Your task to perform on an android device: Go to location settings Image 0: 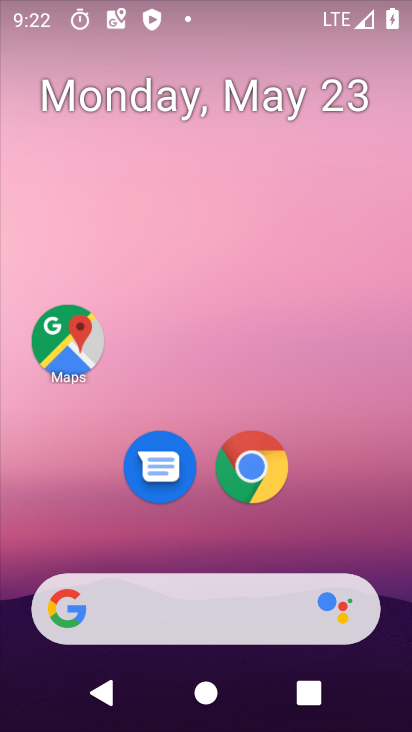
Step 0: drag from (290, 529) to (219, 6)
Your task to perform on an android device: Go to location settings Image 1: 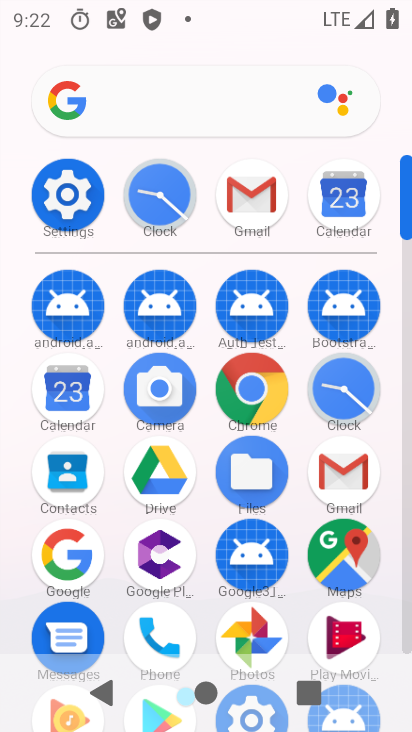
Step 1: click (77, 221)
Your task to perform on an android device: Go to location settings Image 2: 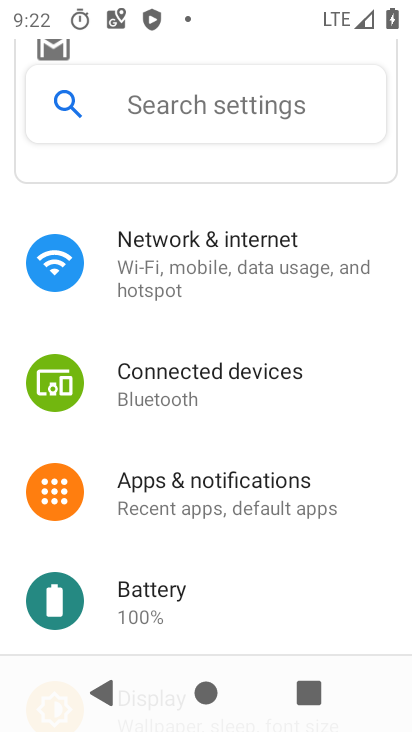
Step 2: drag from (235, 544) to (214, 126)
Your task to perform on an android device: Go to location settings Image 3: 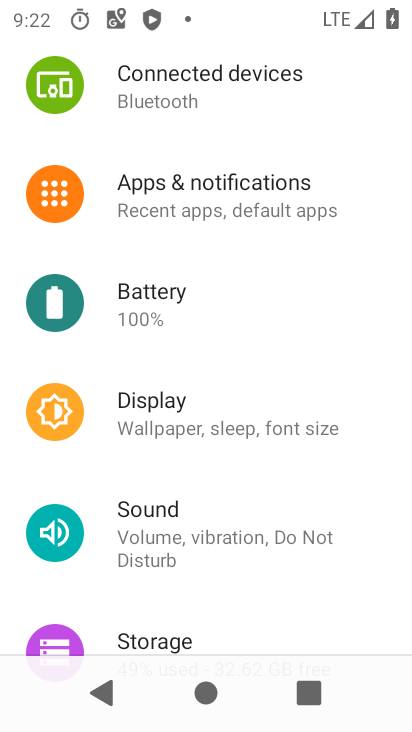
Step 3: drag from (232, 521) to (195, 141)
Your task to perform on an android device: Go to location settings Image 4: 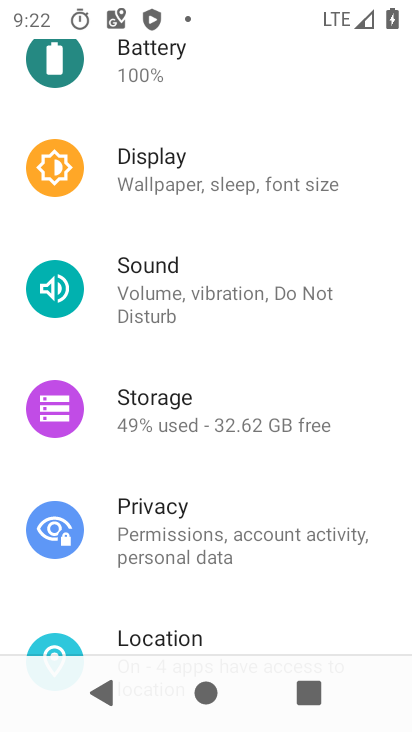
Step 4: click (182, 620)
Your task to perform on an android device: Go to location settings Image 5: 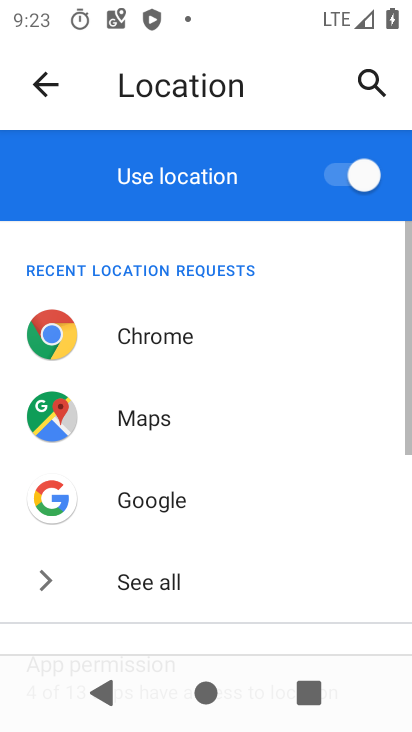
Step 5: task complete